Your task to perform on an android device: Check the news Image 0: 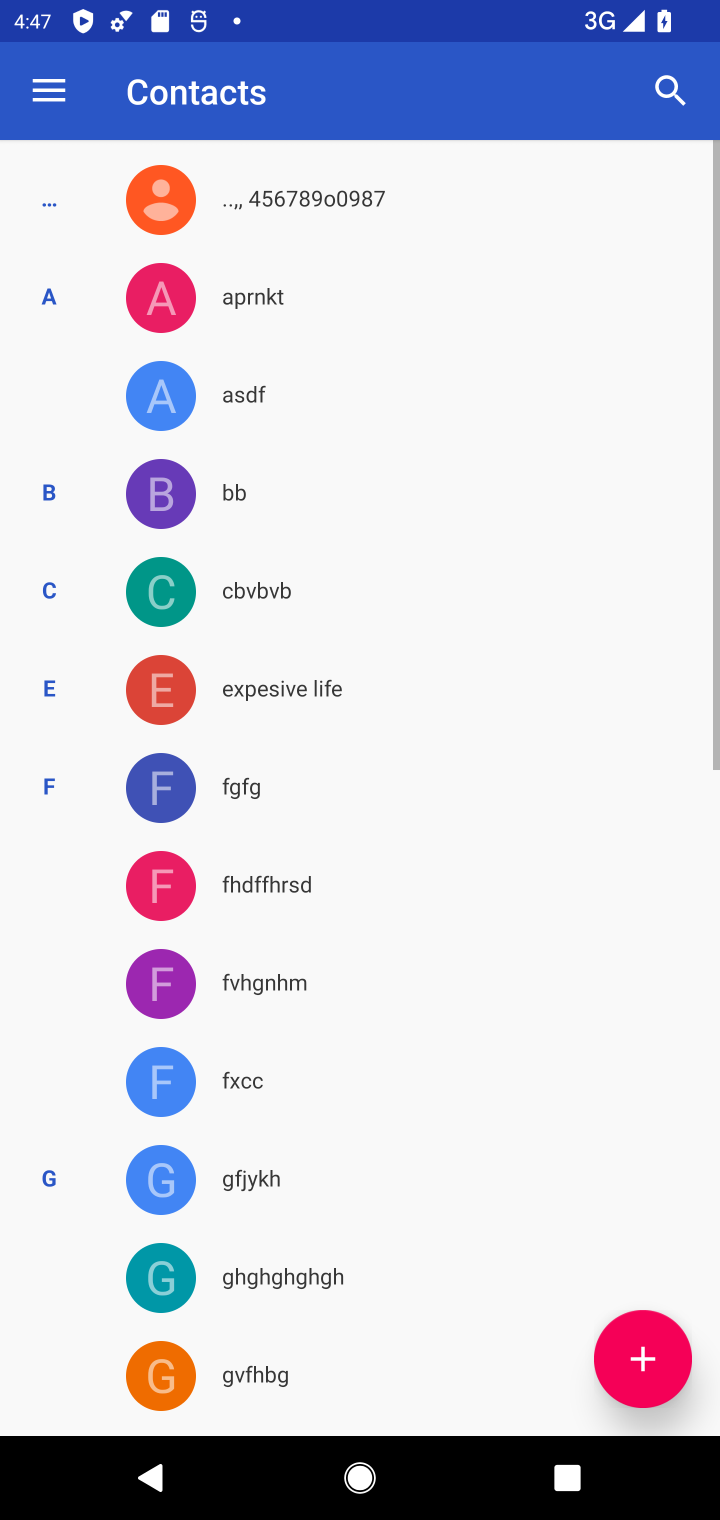
Step 0: press home button
Your task to perform on an android device: Check the news Image 1: 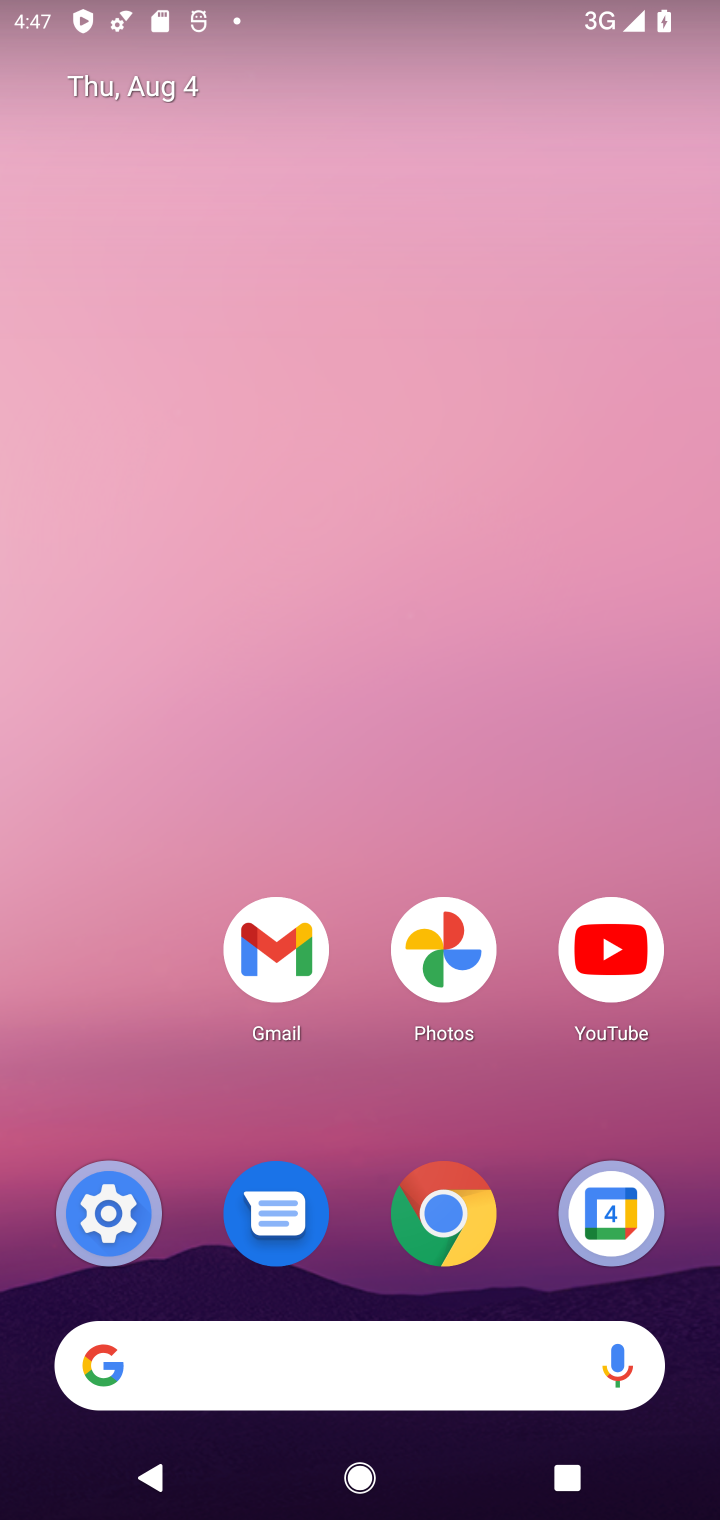
Step 1: task complete